Your task to perform on an android device: make emails show in primary in the gmail app Image 0: 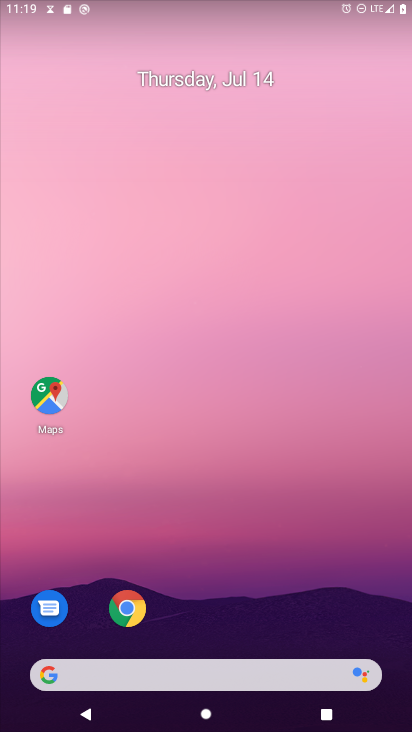
Step 0: drag from (255, 718) to (257, 148)
Your task to perform on an android device: make emails show in primary in the gmail app Image 1: 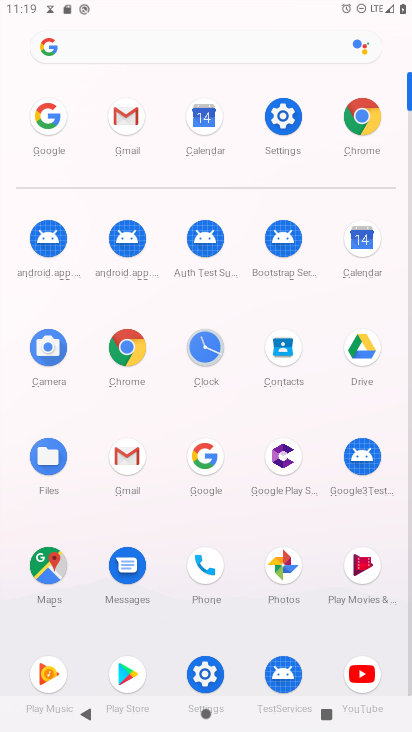
Step 1: click (132, 457)
Your task to perform on an android device: make emails show in primary in the gmail app Image 2: 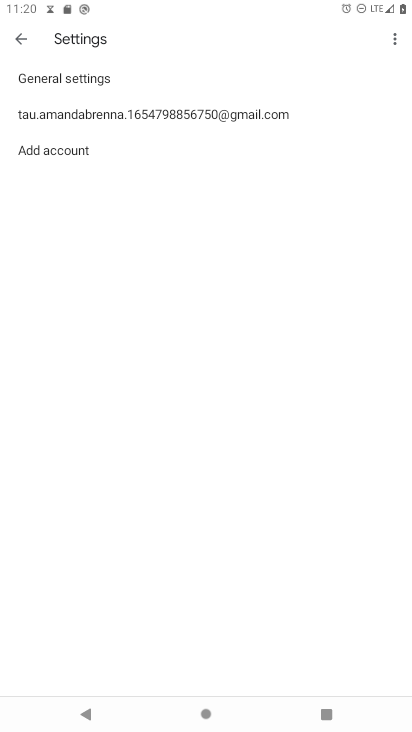
Step 2: click (139, 112)
Your task to perform on an android device: make emails show in primary in the gmail app Image 3: 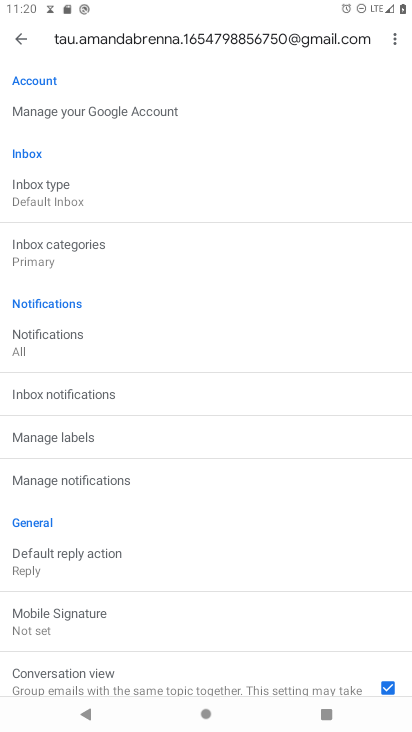
Step 3: task complete